Your task to perform on an android device: Clear the shopping cart on amazon. Search for "razer blade" on amazon, select the first entry, add it to the cart, then select checkout. Image 0: 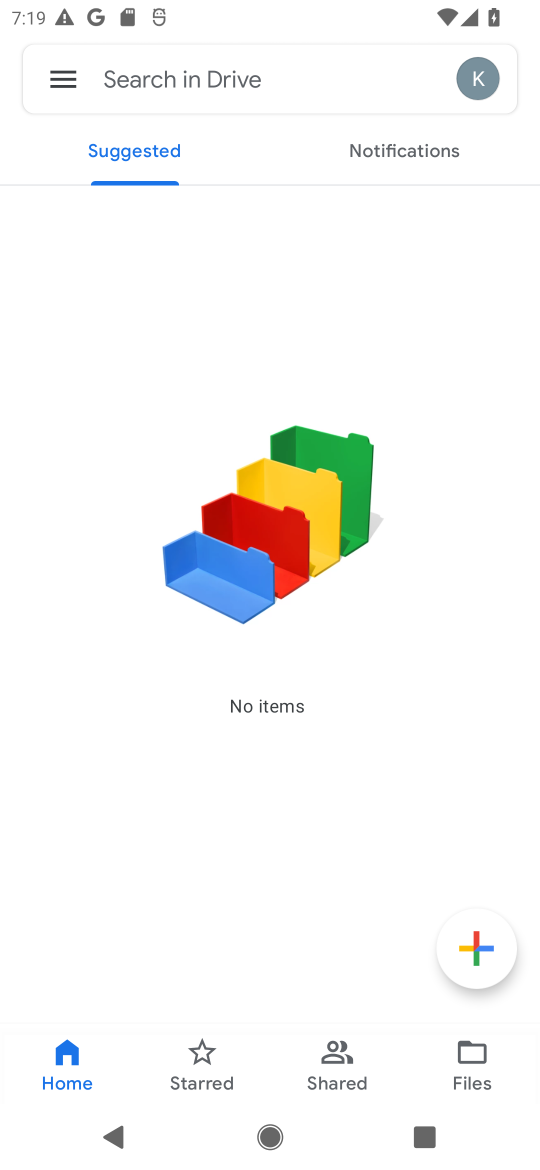
Step 0: press home button
Your task to perform on an android device: Clear the shopping cart on amazon. Search for "razer blade" on amazon, select the first entry, add it to the cart, then select checkout. Image 1: 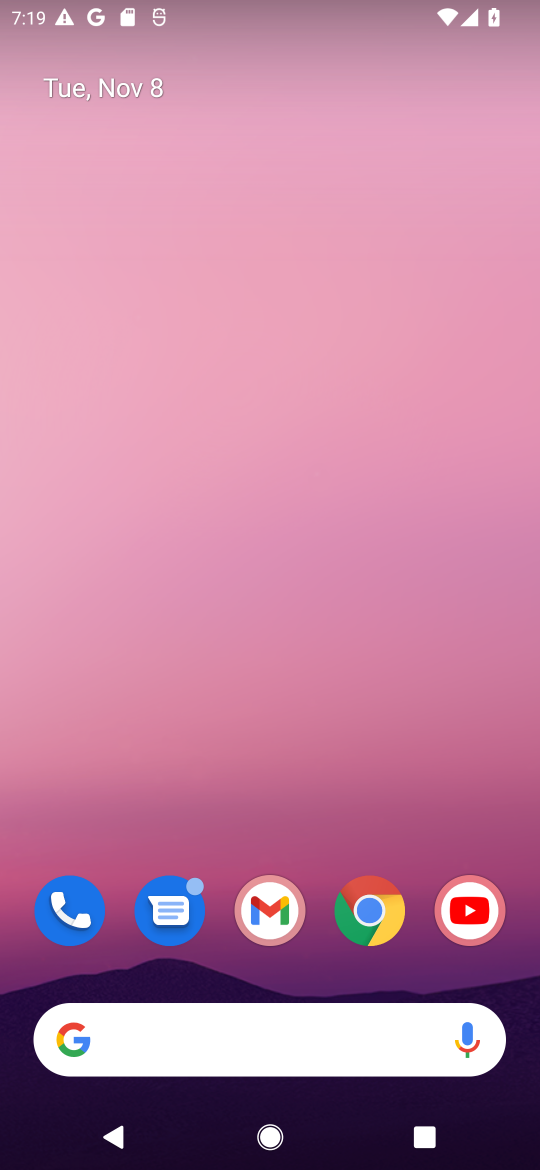
Step 1: click (371, 906)
Your task to perform on an android device: Clear the shopping cart on amazon. Search for "razer blade" on amazon, select the first entry, add it to the cart, then select checkout. Image 2: 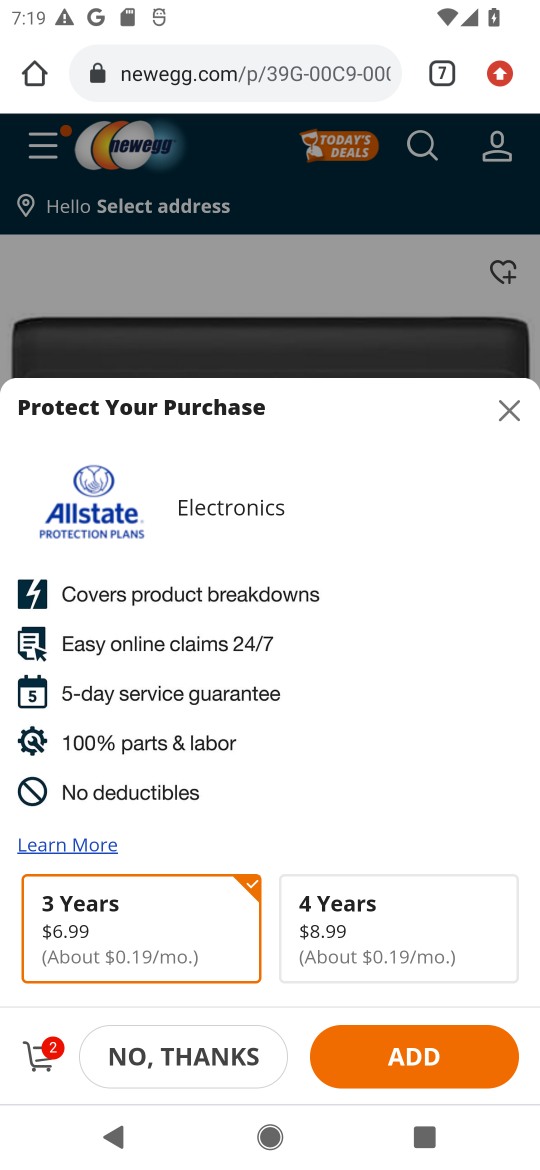
Step 2: click (448, 75)
Your task to perform on an android device: Clear the shopping cart on amazon. Search for "razer blade" on amazon, select the first entry, add it to the cart, then select checkout. Image 3: 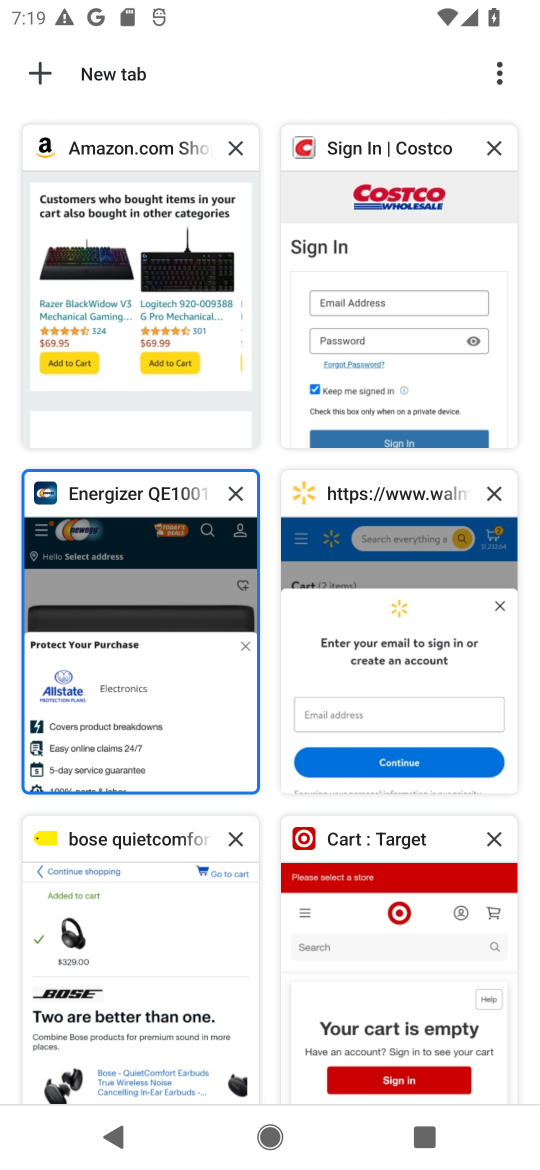
Step 3: click (102, 265)
Your task to perform on an android device: Clear the shopping cart on amazon. Search for "razer blade" on amazon, select the first entry, add it to the cart, then select checkout. Image 4: 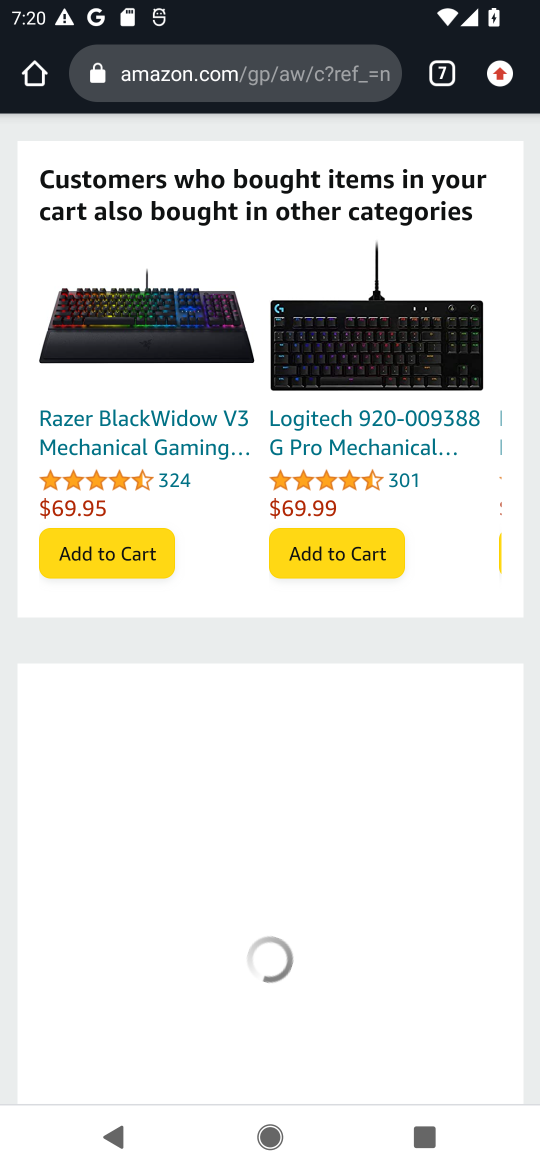
Step 4: drag from (384, 336) to (347, 648)
Your task to perform on an android device: Clear the shopping cart on amazon. Search for "razer blade" on amazon, select the first entry, add it to the cart, then select checkout. Image 5: 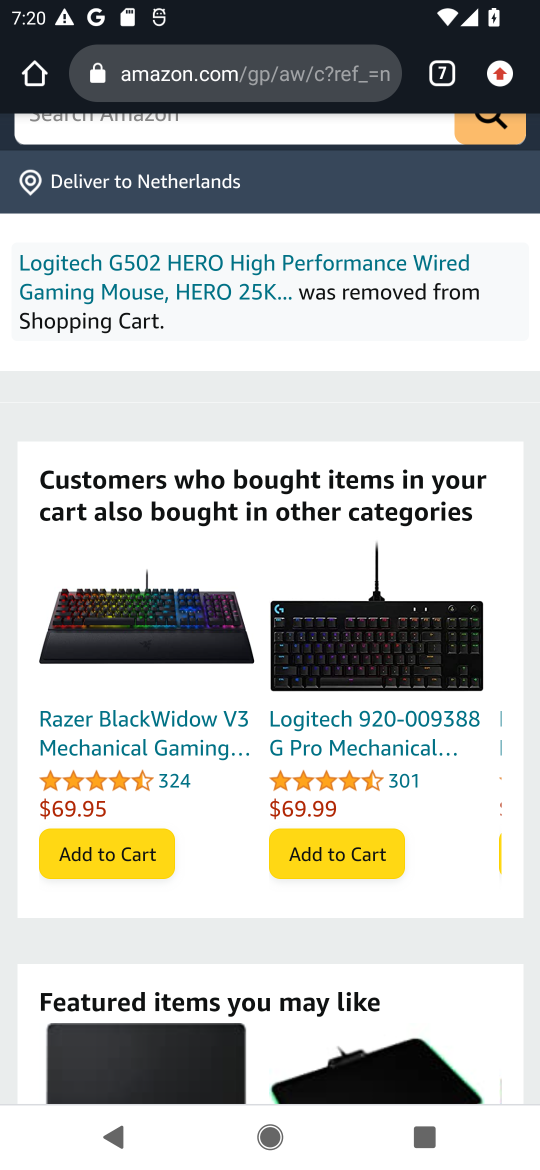
Step 5: click (411, 130)
Your task to perform on an android device: Clear the shopping cart on amazon. Search for "razer blade" on amazon, select the first entry, add it to the cart, then select checkout. Image 6: 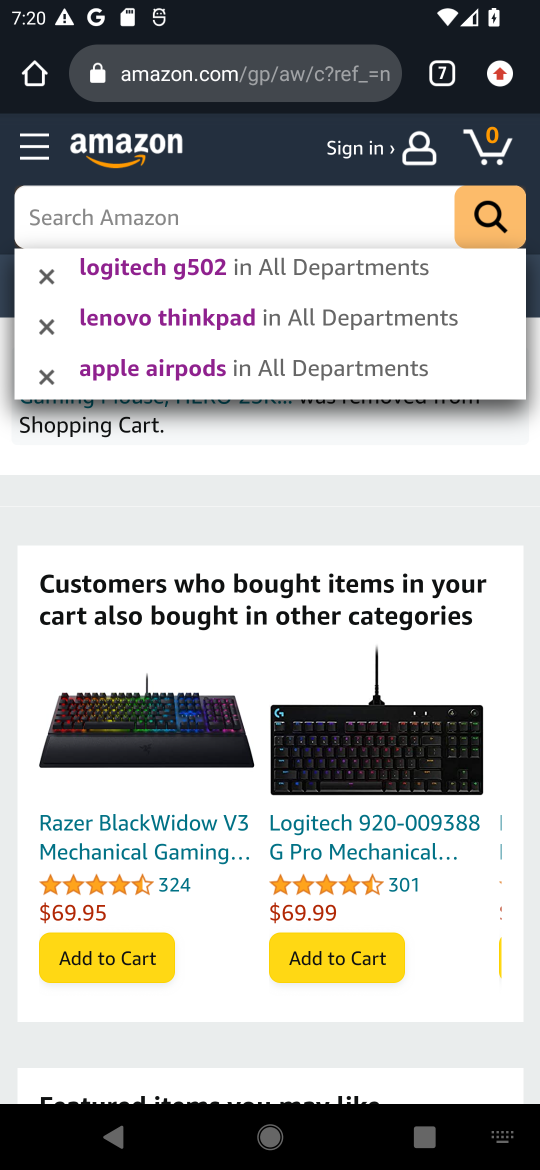
Step 6: type "razer blade"
Your task to perform on an android device: Clear the shopping cart on amazon. Search for "razer blade" on amazon, select the first entry, add it to the cart, then select checkout. Image 7: 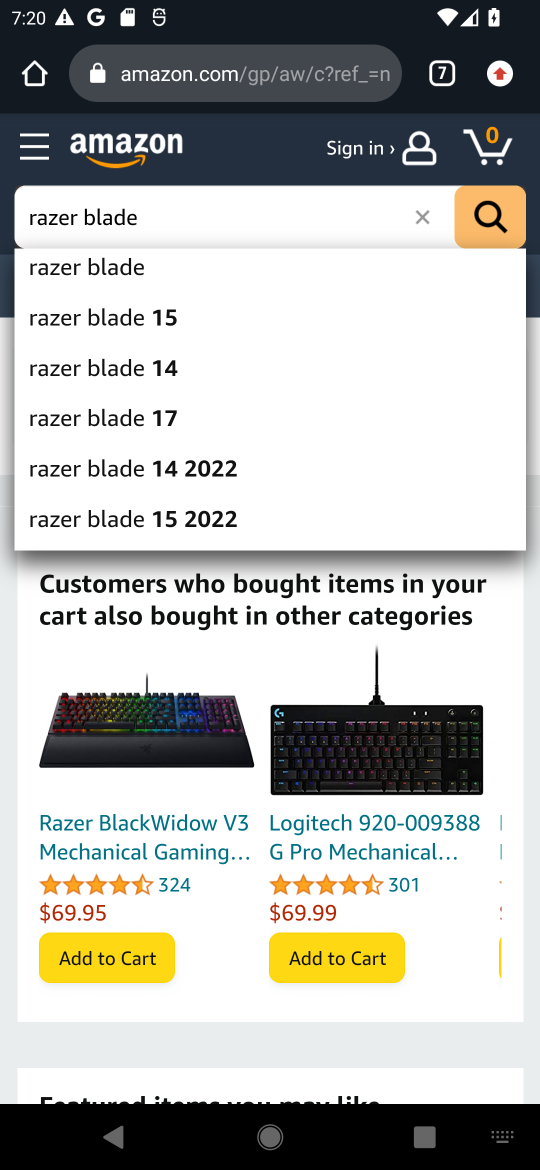
Step 7: click (116, 267)
Your task to perform on an android device: Clear the shopping cart on amazon. Search for "razer blade" on amazon, select the first entry, add it to the cart, then select checkout. Image 8: 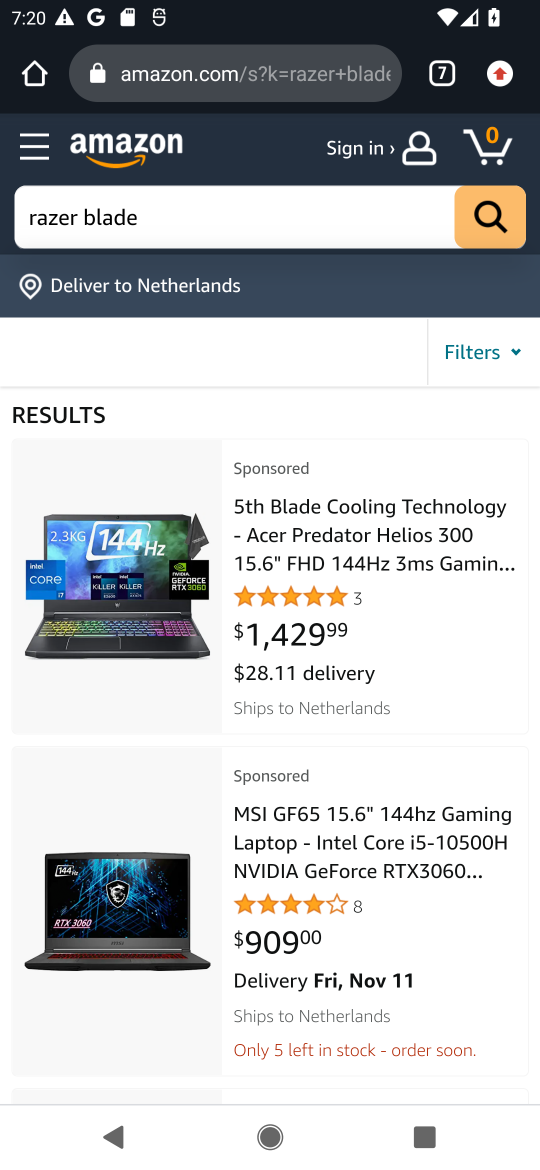
Step 8: drag from (444, 929) to (386, 419)
Your task to perform on an android device: Clear the shopping cart on amazon. Search for "razer blade" on amazon, select the first entry, add it to the cart, then select checkout. Image 9: 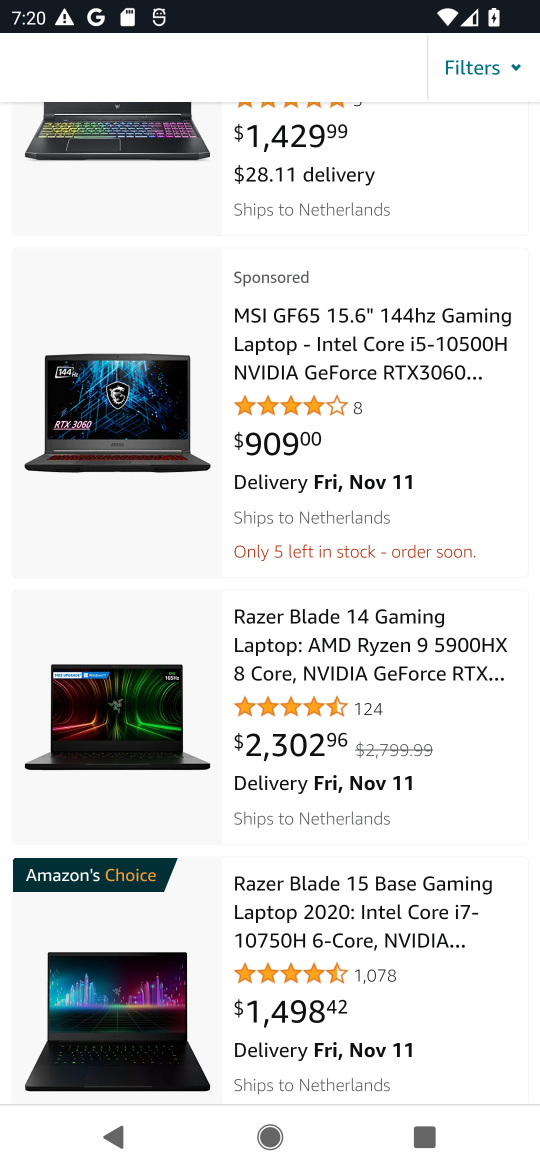
Step 9: click (309, 900)
Your task to perform on an android device: Clear the shopping cart on amazon. Search for "razer blade" on amazon, select the first entry, add it to the cart, then select checkout. Image 10: 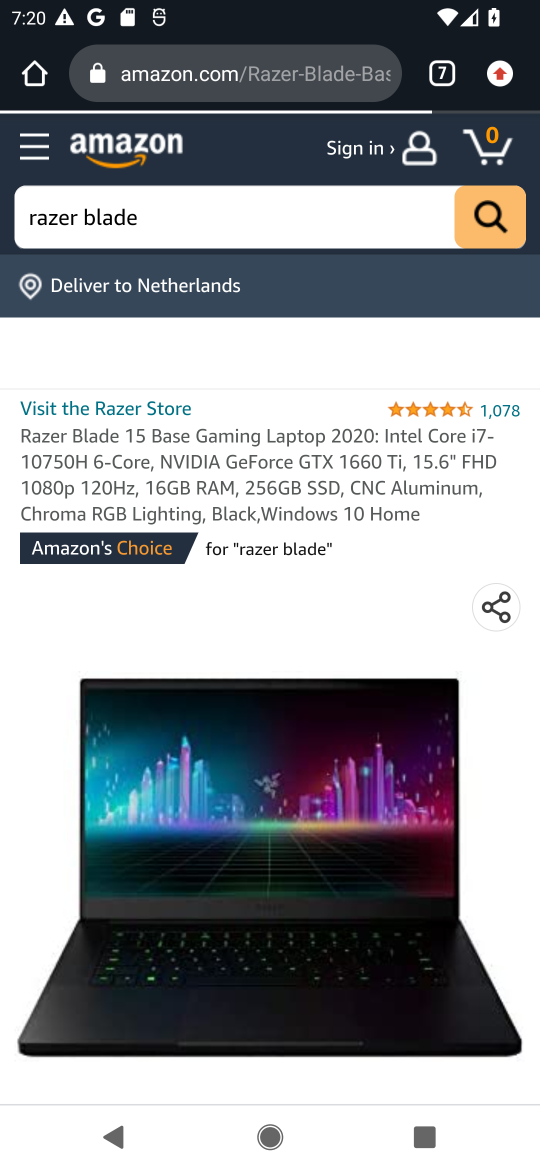
Step 10: drag from (155, 1050) to (227, 381)
Your task to perform on an android device: Clear the shopping cart on amazon. Search for "razer blade" on amazon, select the first entry, add it to the cart, then select checkout. Image 11: 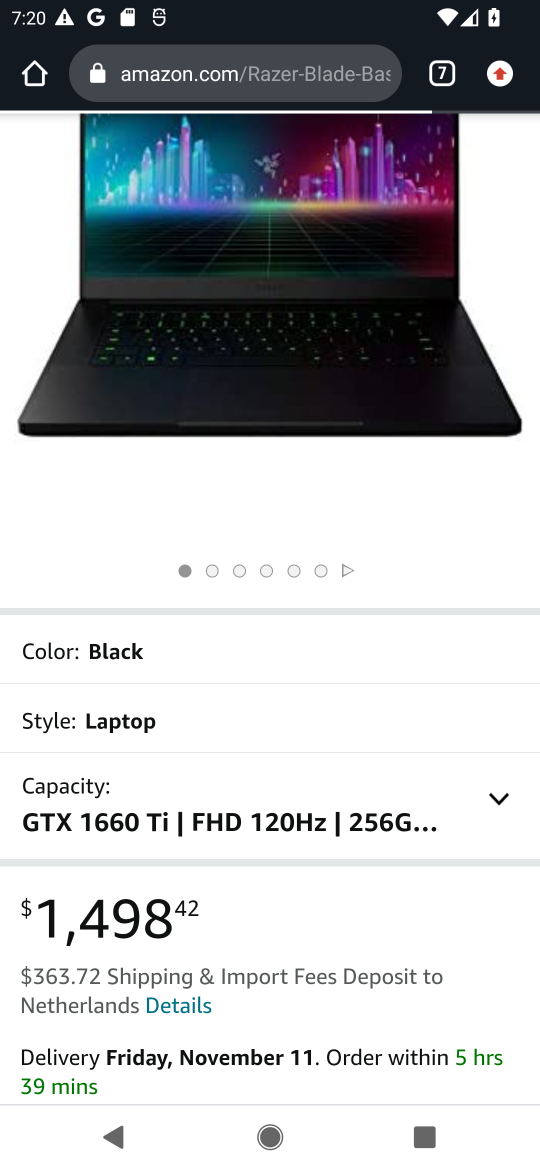
Step 11: drag from (262, 871) to (380, 313)
Your task to perform on an android device: Clear the shopping cart on amazon. Search for "razer blade" on amazon, select the first entry, add it to the cart, then select checkout. Image 12: 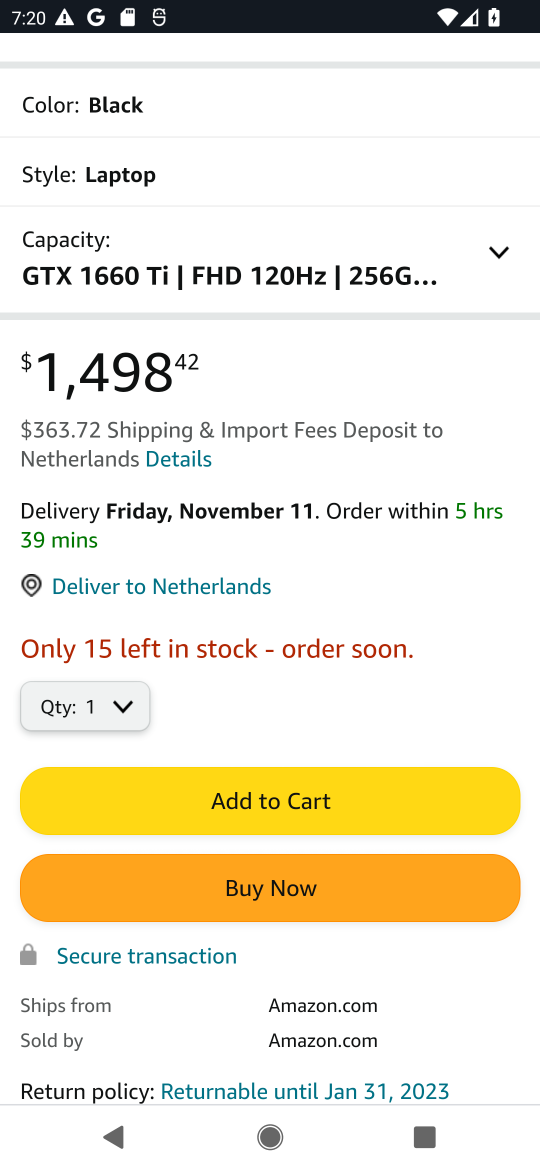
Step 12: click (305, 787)
Your task to perform on an android device: Clear the shopping cart on amazon. Search for "razer blade" on amazon, select the first entry, add it to the cart, then select checkout. Image 13: 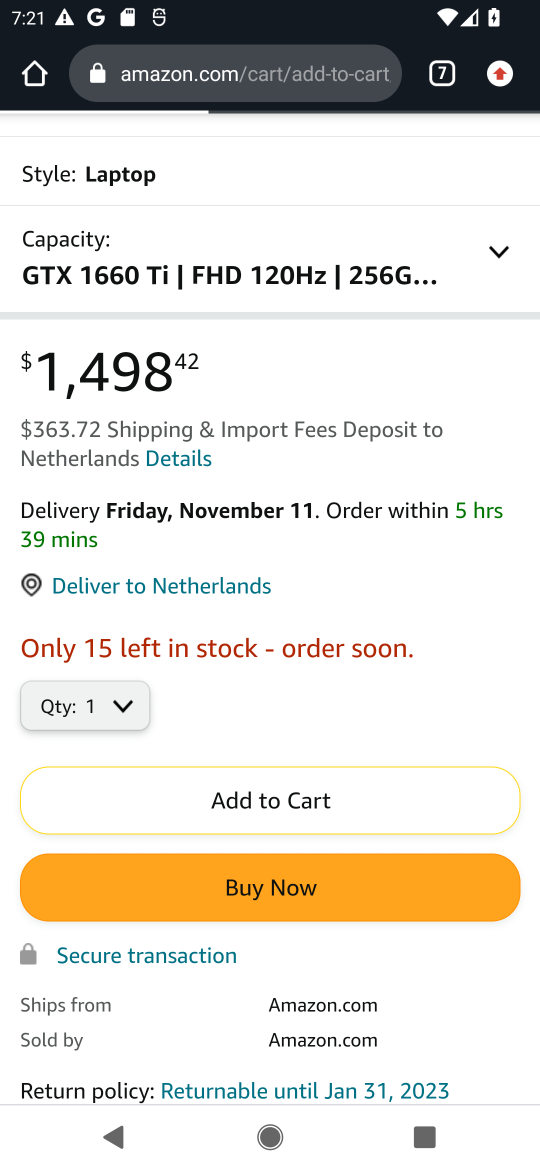
Step 13: task complete